Your task to perform on an android device: turn on the 12-hour format for clock Image 0: 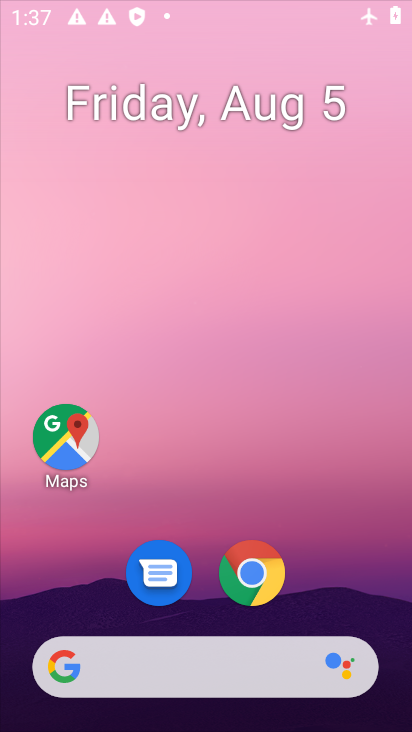
Step 0: press home button
Your task to perform on an android device: turn on the 12-hour format for clock Image 1: 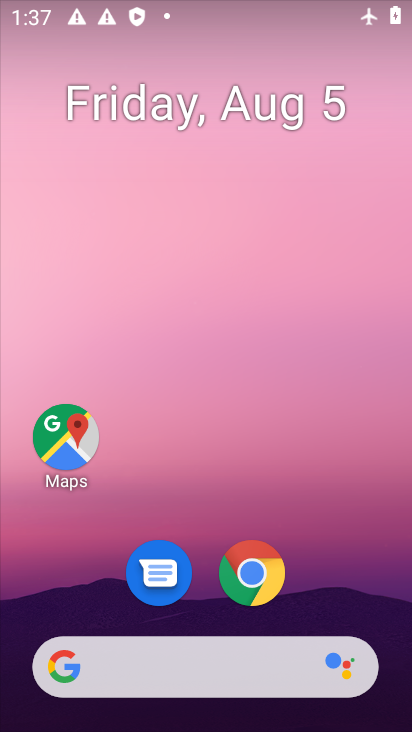
Step 1: drag from (335, 594) to (357, 167)
Your task to perform on an android device: turn on the 12-hour format for clock Image 2: 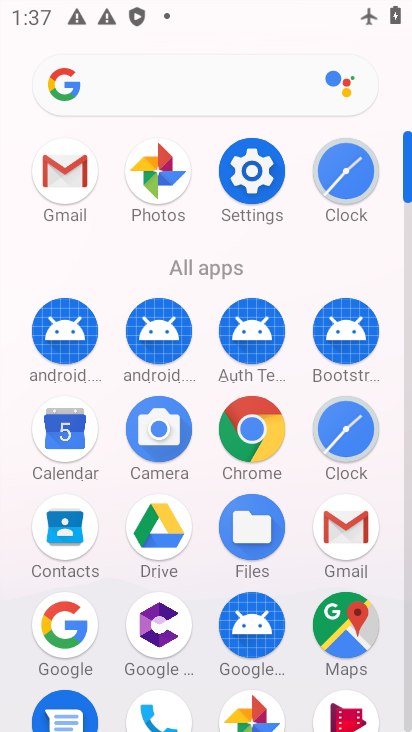
Step 2: click (345, 433)
Your task to perform on an android device: turn on the 12-hour format for clock Image 3: 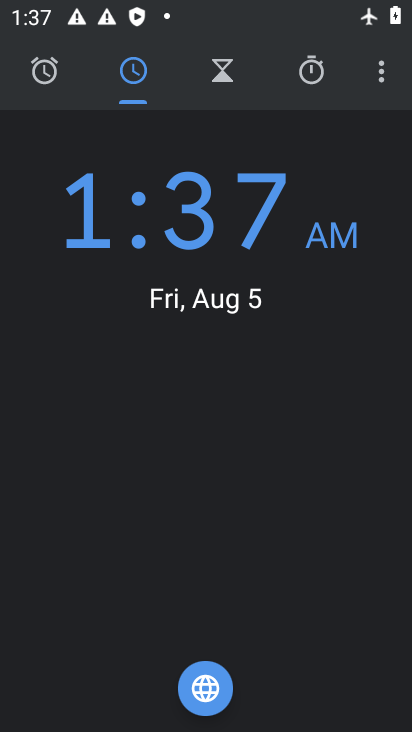
Step 3: click (382, 80)
Your task to perform on an android device: turn on the 12-hour format for clock Image 4: 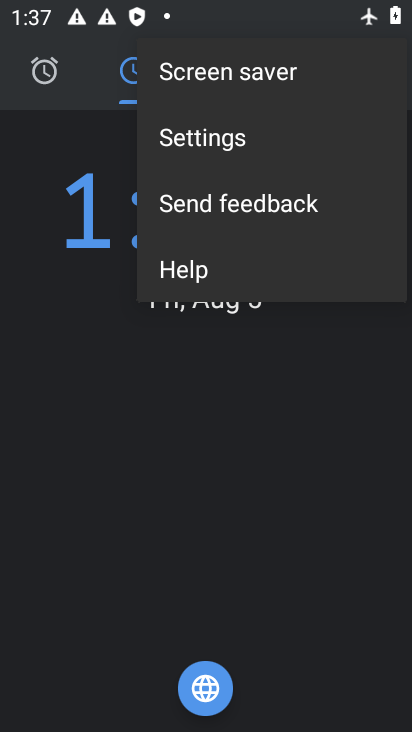
Step 4: click (245, 143)
Your task to perform on an android device: turn on the 12-hour format for clock Image 5: 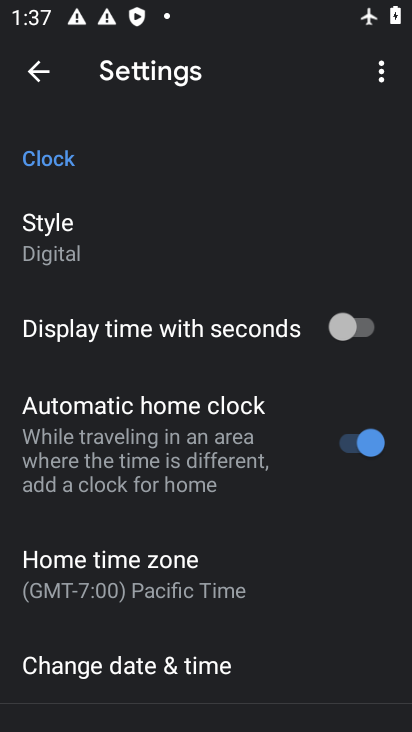
Step 5: drag from (311, 480) to (310, 384)
Your task to perform on an android device: turn on the 12-hour format for clock Image 6: 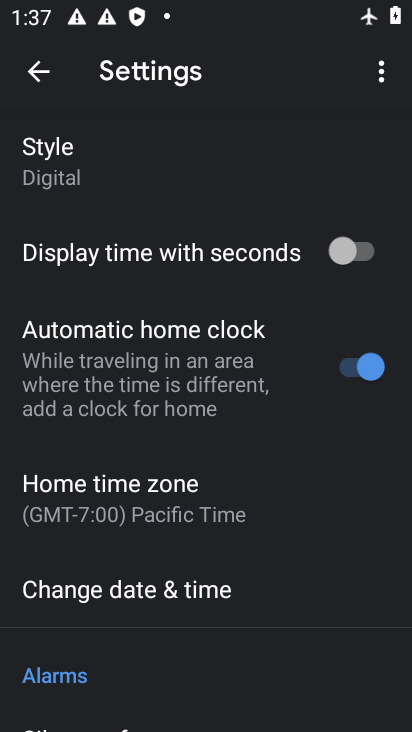
Step 6: drag from (300, 532) to (313, 421)
Your task to perform on an android device: turn on the 12-hour format for clock Image 7: 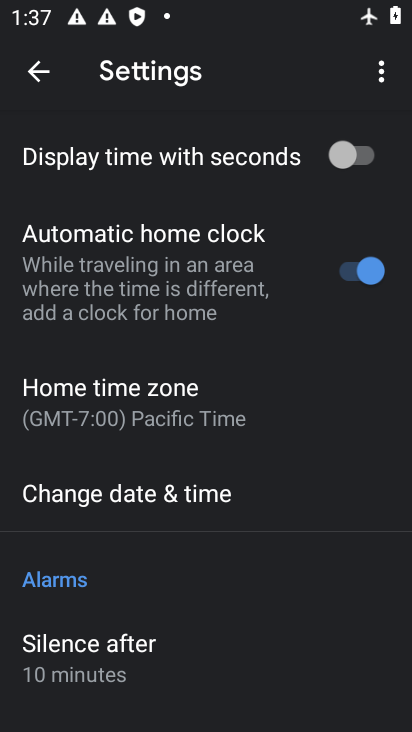
Step 7: drag from (337, 571) to (327, 446)
Your task to perform on an android device: turn on the 12-hour format for clock Image 8: 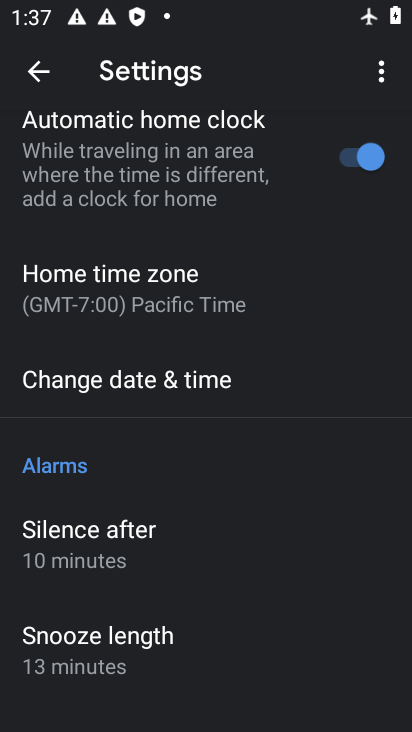
Step 8: drag from (309, 555) to (309, 427)
Your task to perform on an android device: turn on the 12-hour format for clock Image 9: 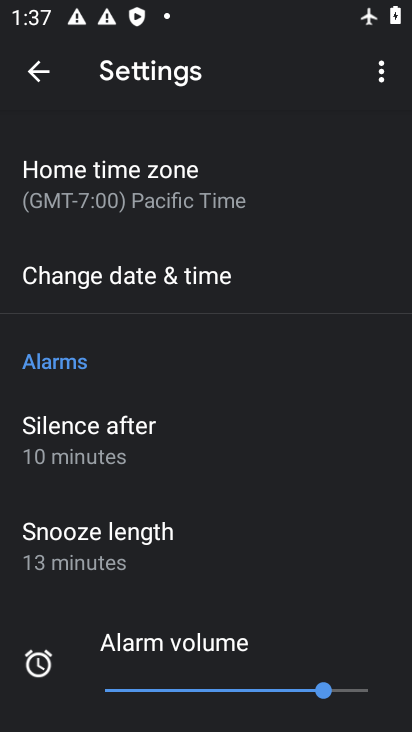
Step 9: click (292, 293)
Your task to perform on an android device: turn on the 12-hour format for clock Image 10: 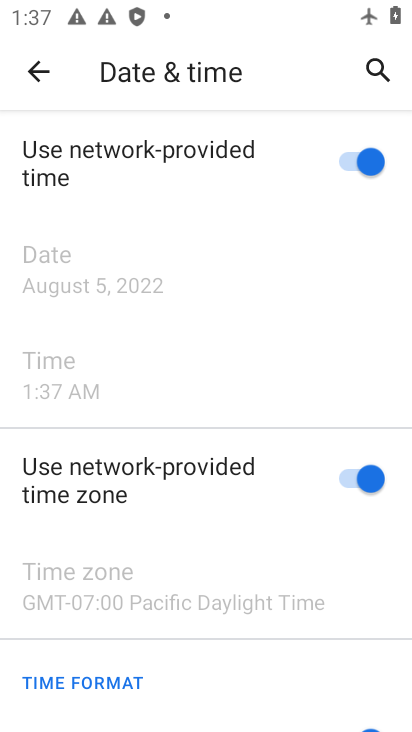
Step 10: task complete